Your task to perform on an android device: Go to CNN.com Image 0: 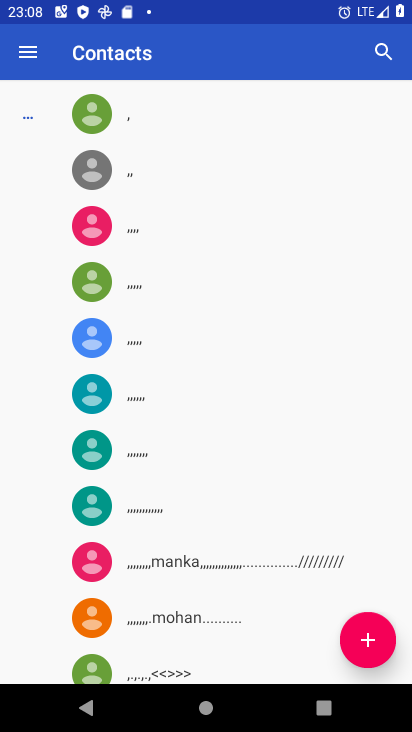
Step 0: press home button
Your task to perform on an android device: Go to CNN.com Image 1: 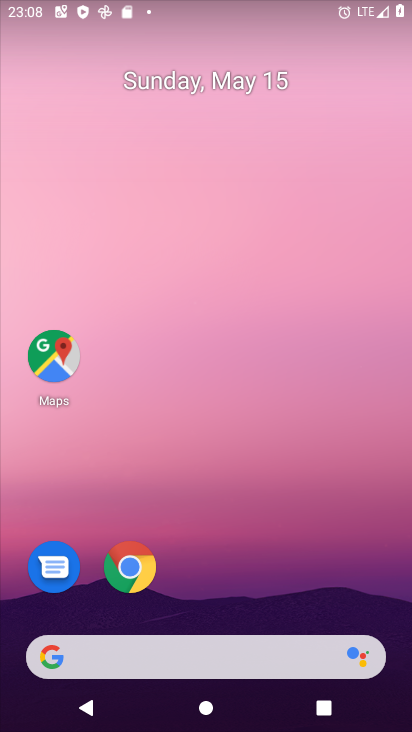
Step 1: click (273, 658)
Your task to perform on an android device: Go to CNN.com Image 2: 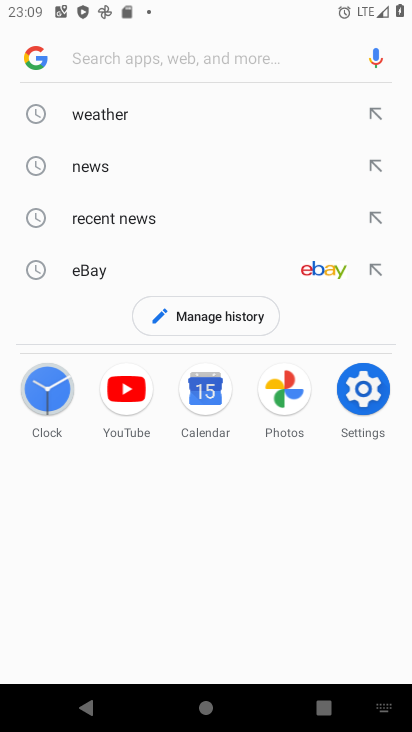
Step 2: type "cnn.com"
Your task to perform on an android device: Go to CNN.com Image 3: 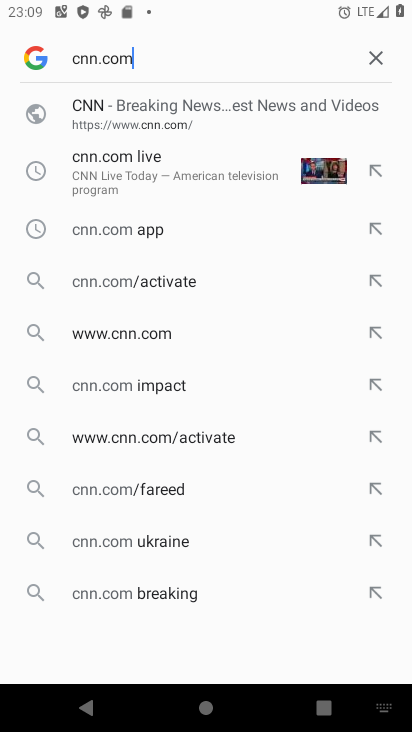
Step 3: click (266, 113)
Your task to perform on an android device: Go to CNN.com Image 4: 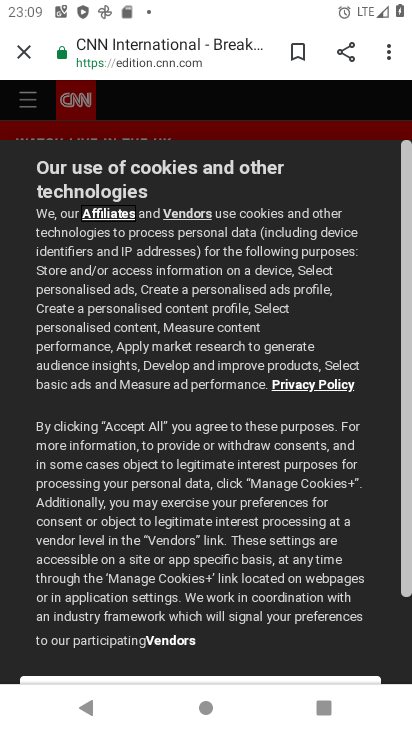
Step 4: task complete